Your task to perform on an android device: turn on sleep mode Image 0: 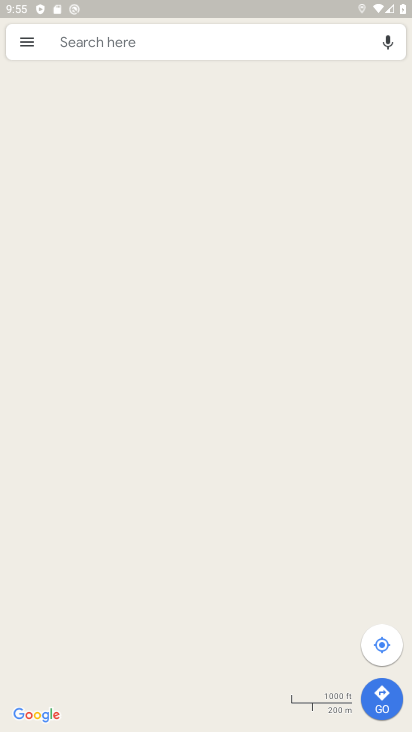
Step 0: press back button
Your task to perform on an android device: turn on sleep mode Image 1: 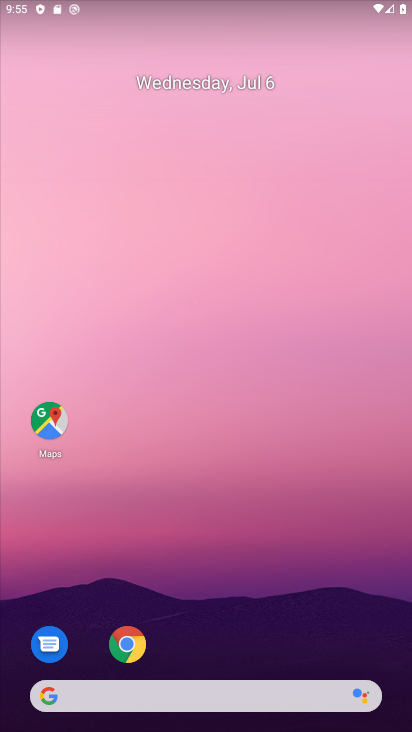
Step 1: press home button
Your task to perform on an android device: turn on sleep mode Image 2: 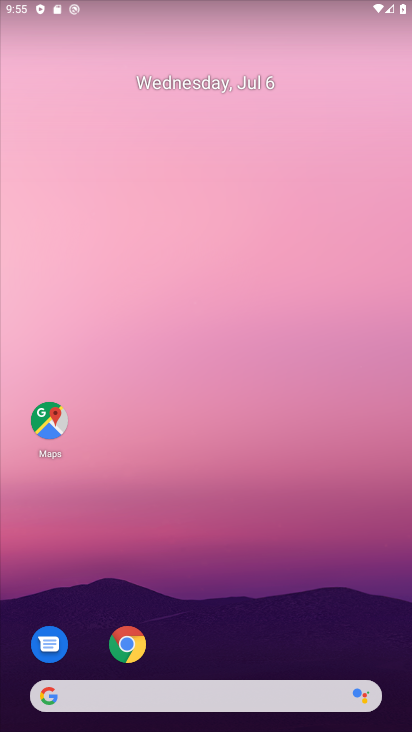
Step 2: drag from (167, 509) to (114, 140)
Your task to perform on an android device: turn on sleep mode Image 3: 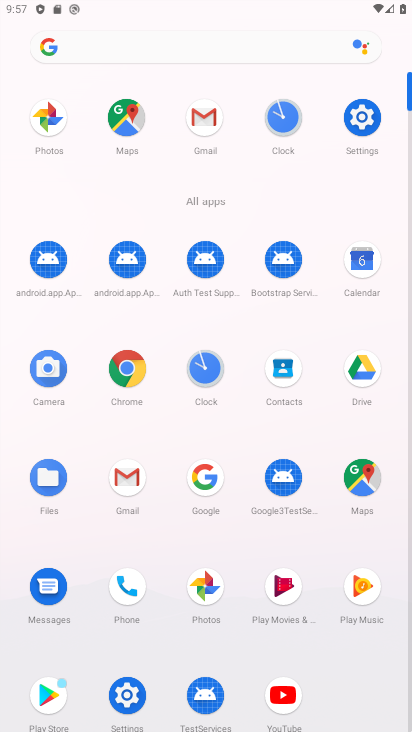
Step 3: click (360, 108)
Your task to perform on an android device: turn on sleep mode Image 4: 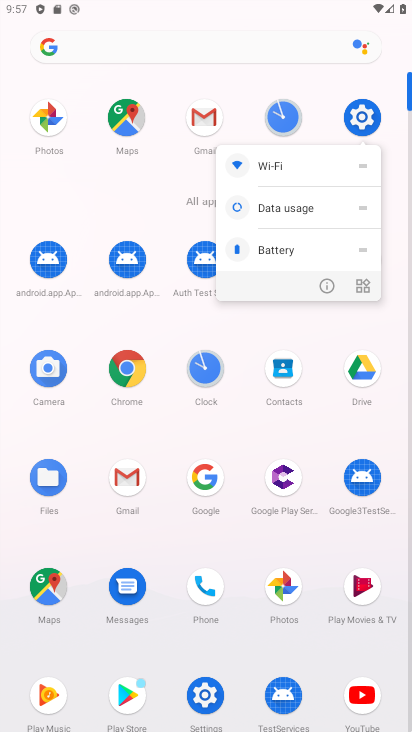
Step 4: click (355, 133)
Your task to perform on an android device: turn on sleep mode Image 5: 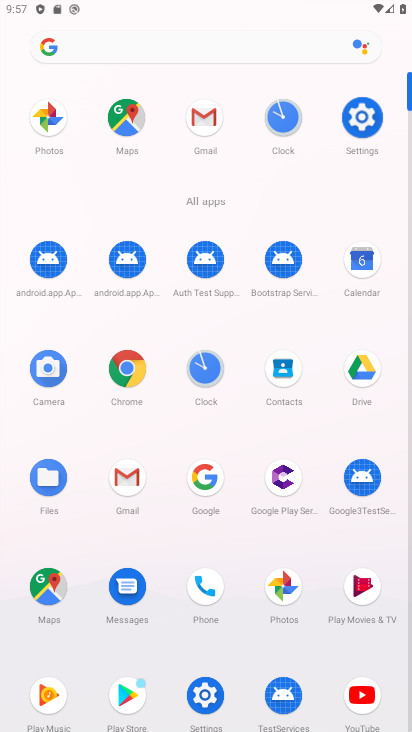
Step 5: click (361, 121)
Your task to perform on an android device: turn on sleep mode Image 6: 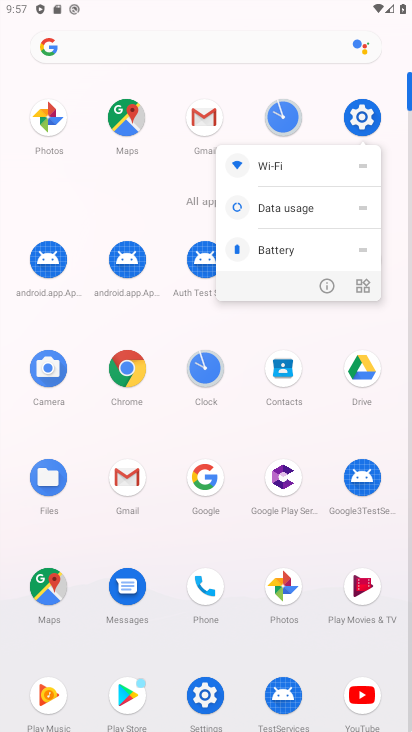
Step 6: click (345, 131)
Your task to perform on an android device: turn on sleep mode Image 7: 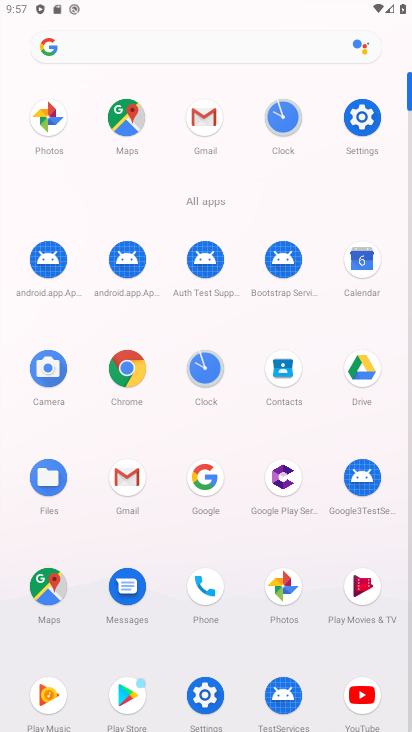
Step 7: click (355, 119)
Your task to perform on an android device: turn on sleep mode Image 8: 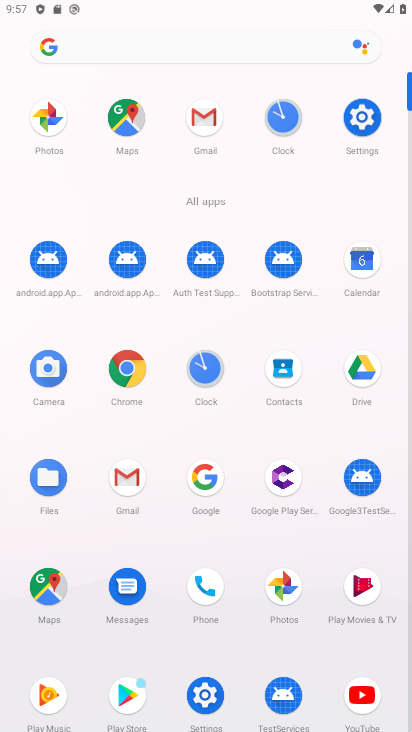
Step 8: click (355, 119)
Your task to perform on an android device: turn on sleep mode Image 9: 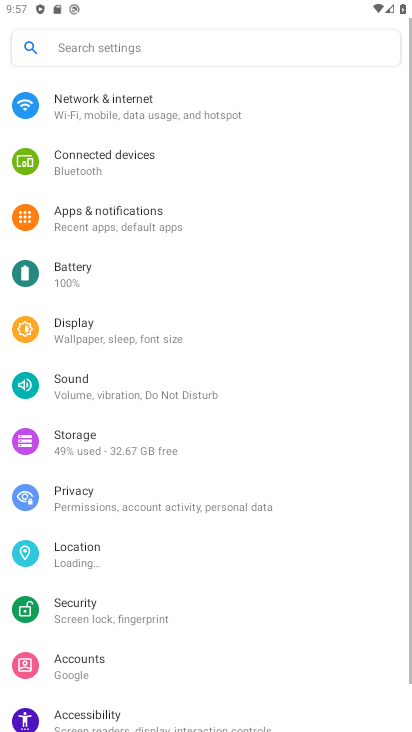
Step 9: click (361, 123)
Your task to perform on an android device: turn on sleep mode Image 10: 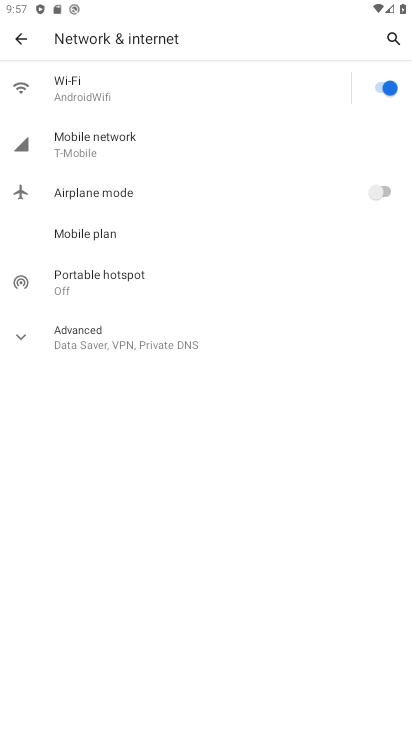
Step 10: task complete